Your task to perform on an android device: Show me productivity apps on the Play Store Image 0: 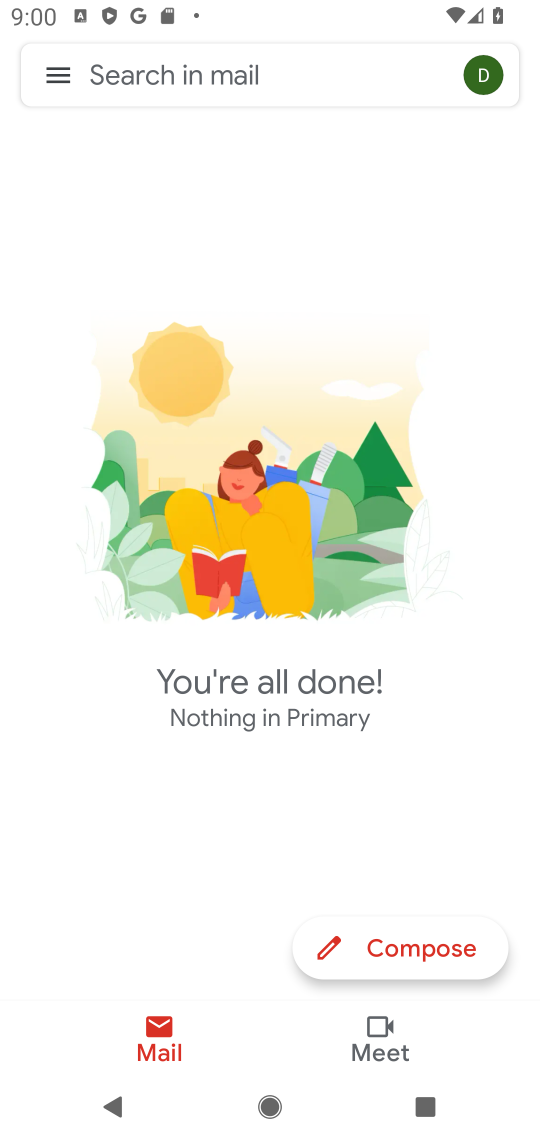
Step 0: press home button
Your task to perform on an android device: Show me productivity apps on the Play Store Image 1: 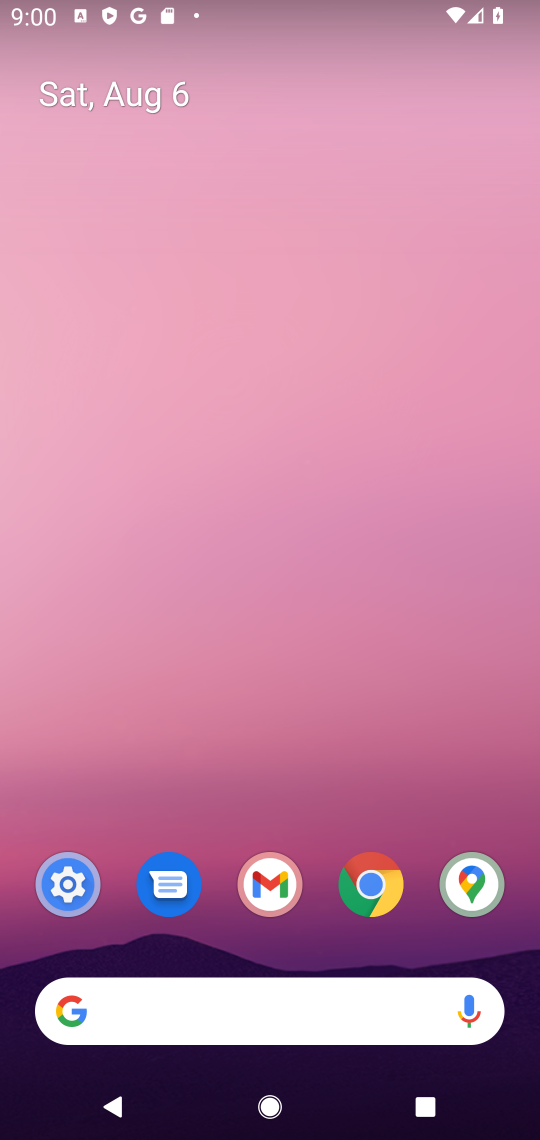
Step 1: drag from (436, 944) to (374, 121)
Your task to perform on an android device: Show me productivity apps on the Play Store Image 2: 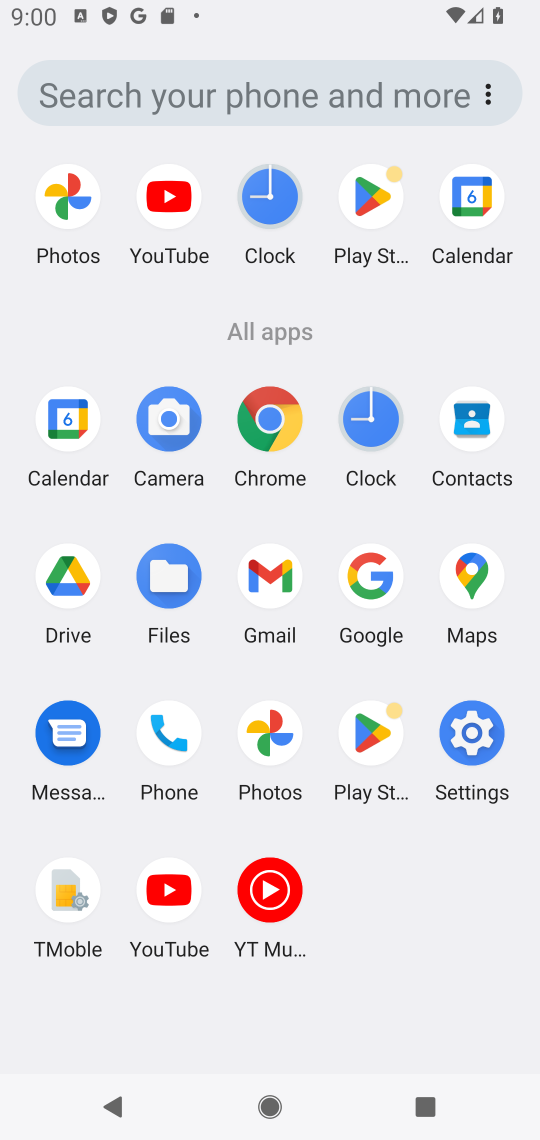
Step 2: click (373, 732)
Your task to perform on an android device: Show me productivity apps on the Play Store Image 3: 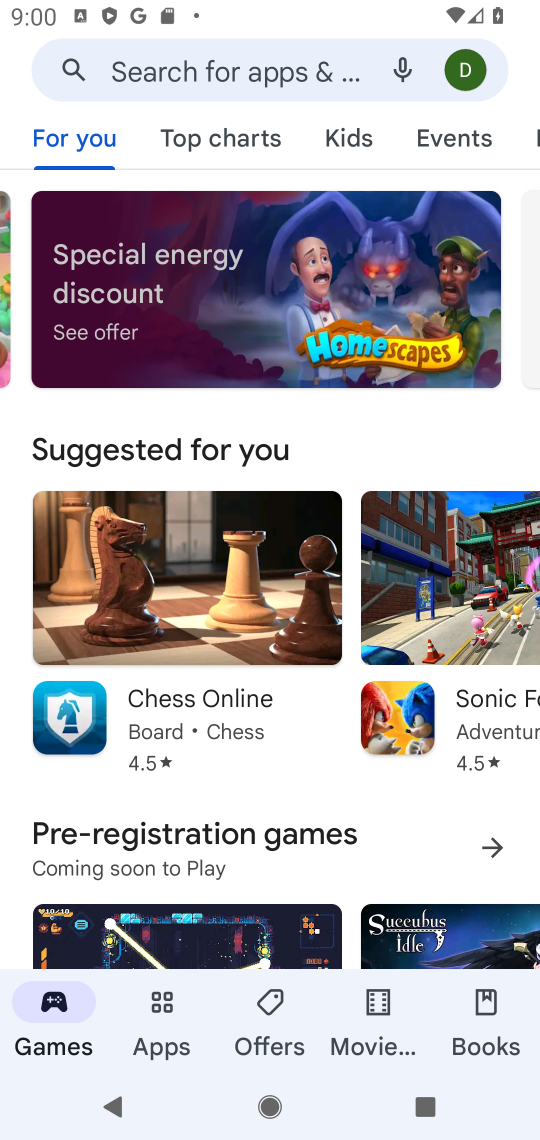
Step 3: click (156, 1015)
Your task to perform on an android device: Show me productivity apps on the Play Store Image 4: 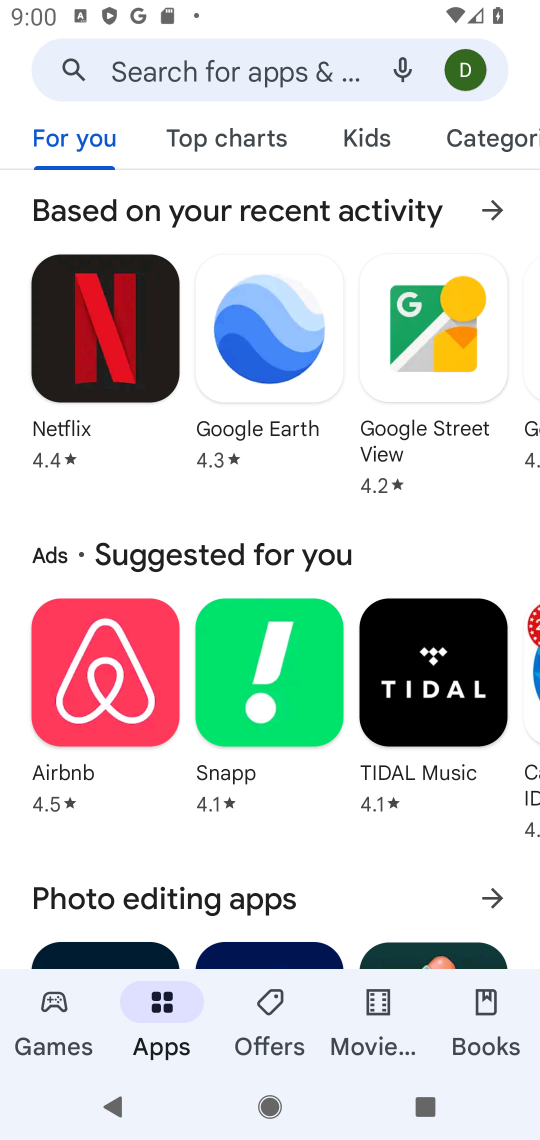
Step 4: click (488, 136)
Your task to perform on an android device: Show me productivity apps on the Play Store Image 5: 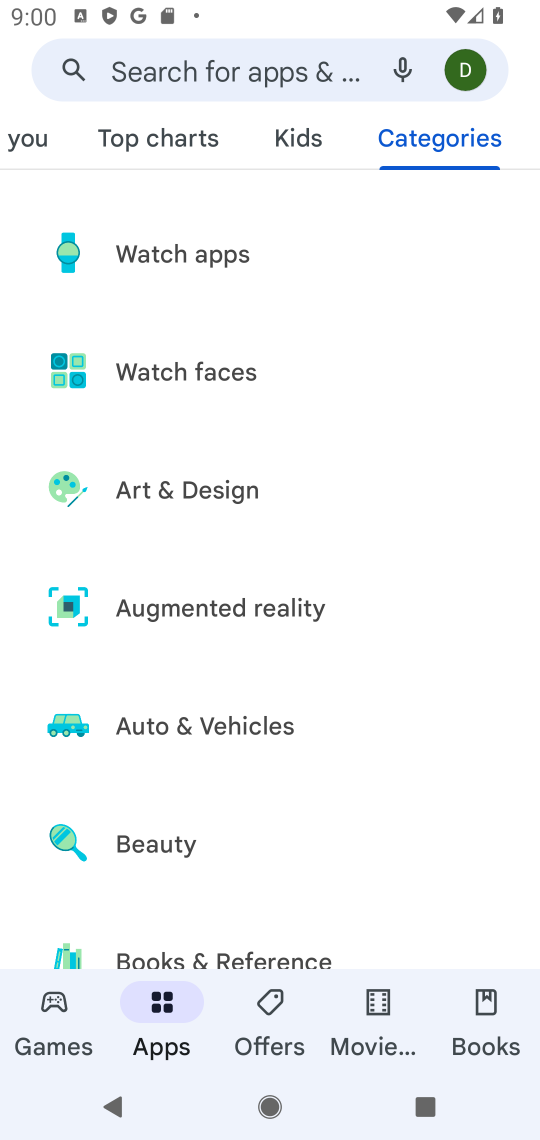
Step 5: drag from (359, 905) to (351, 281)
Your task to perform on an android device: Show me productivity apps on the Play Store Image 6: 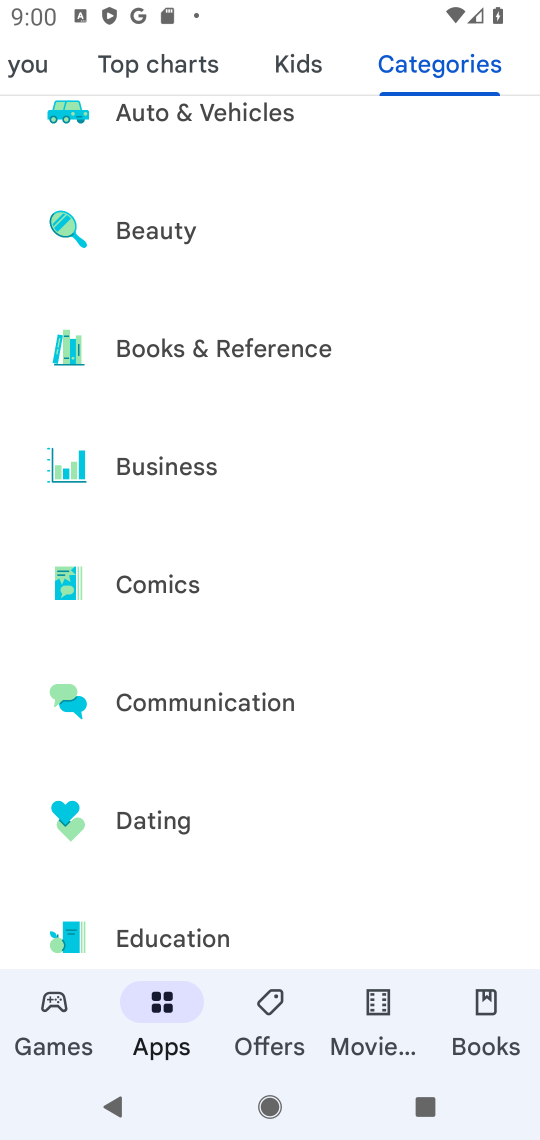
Step 6: drag from (359, 926) to (345, 338)
Your task to perform on an android device: Show me productivity apps on the Play Store Image 7: 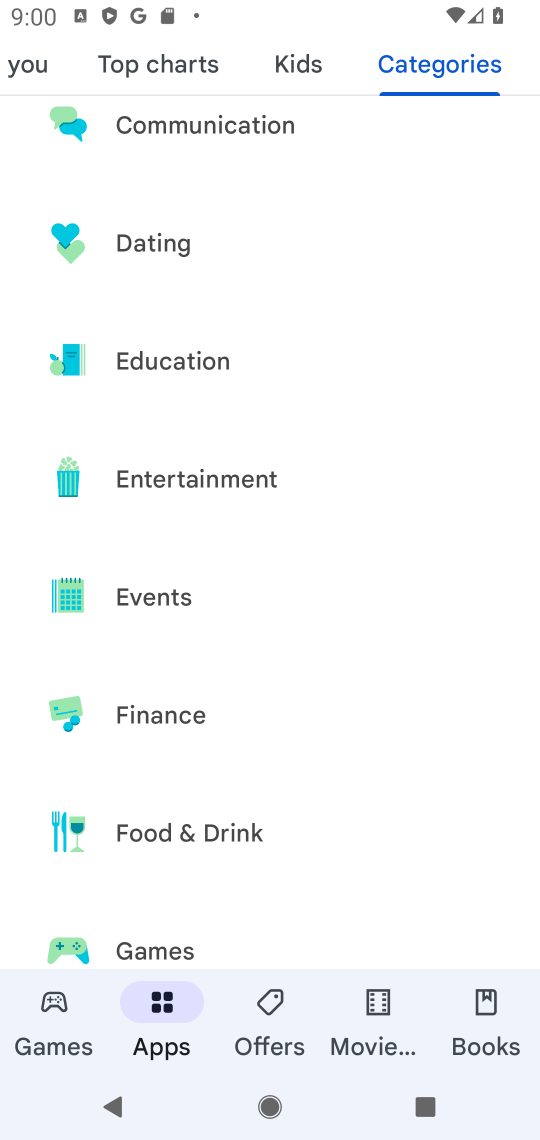
Step 7: drag from (333, 932) to (305, 300)
Your task to perform on an android device: Show me productivity apps on the Play Store Image 8: 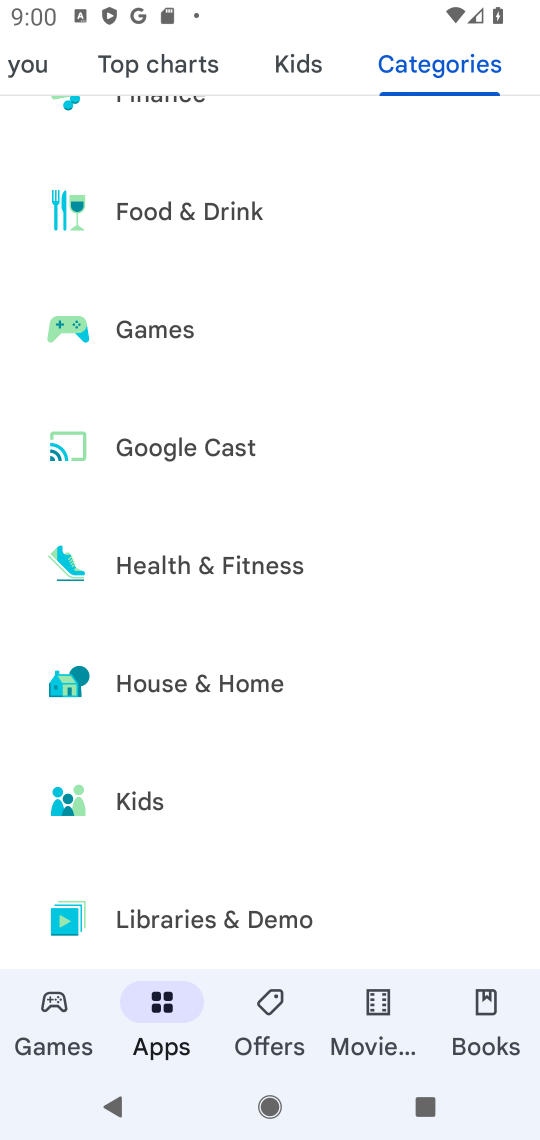
Step 8: drag from (395, 899) to (352, 267)
Your task to perform on an android device: Show me productivity apps on the Play Store Image 9: 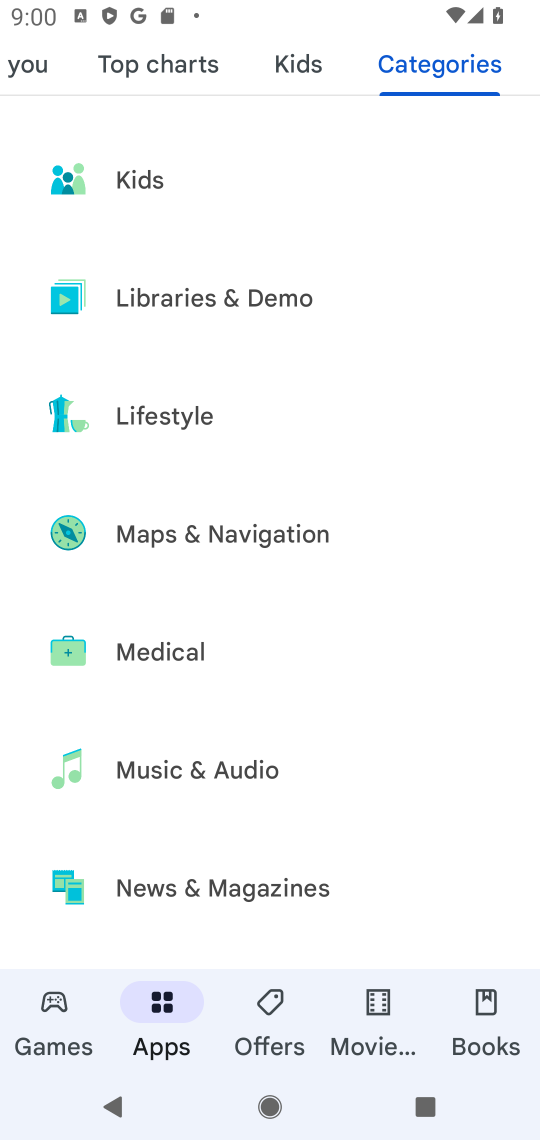
Step 9: drag from (367, 953) to (333, 288)
Your task to perform on an android device: Show me productivity apps on the Play Store Image 10: 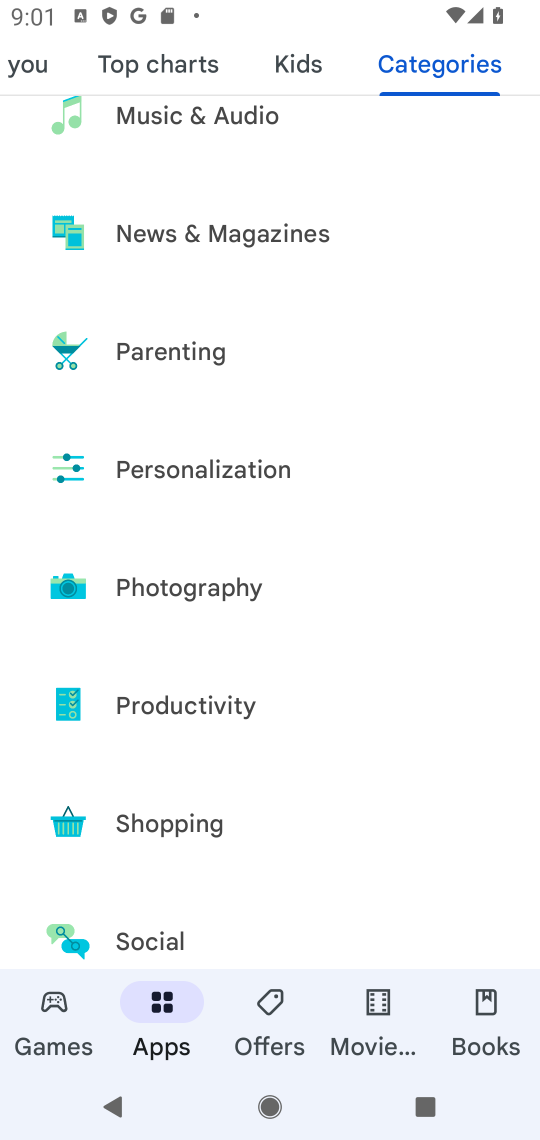
Step 10: click (174, 701)
Your task to perform on an android device: Show me productivity apps on the Play Store Image 11: 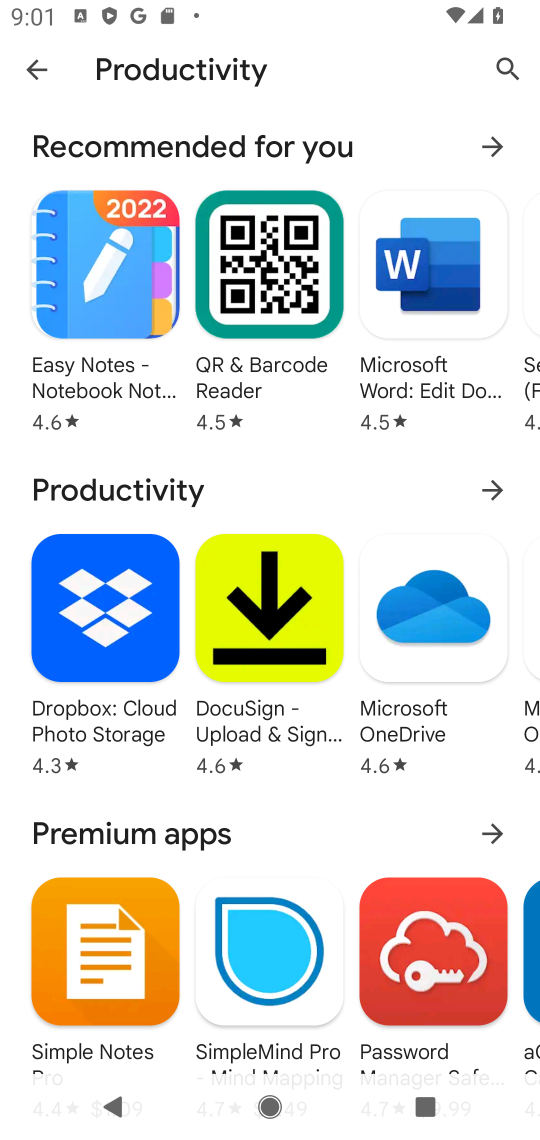
Step 11: click (492, 490)
Your task to perform on an android device: Show me productivity apps on the Play Store Image 12: 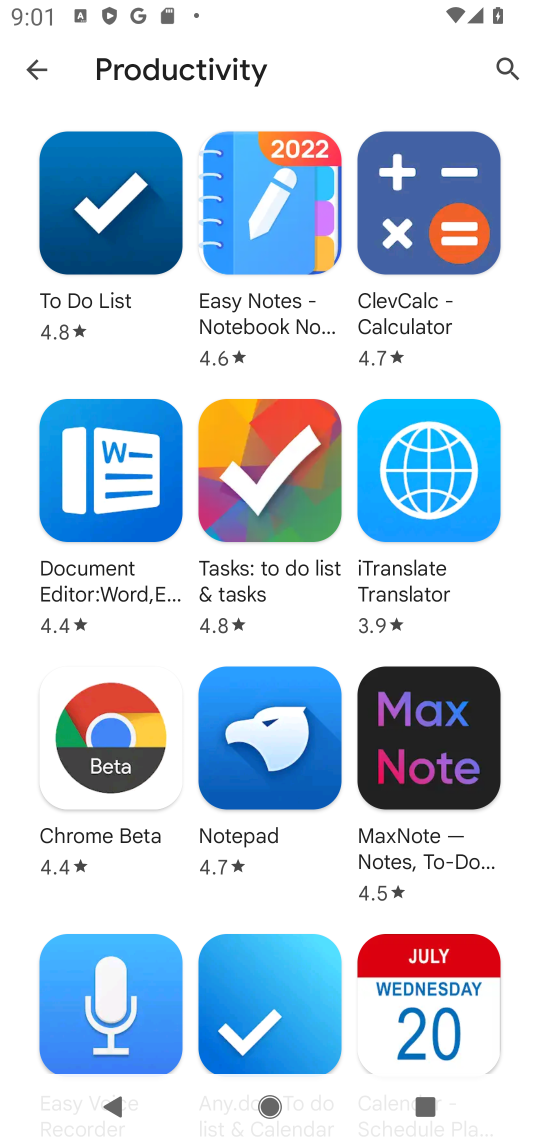
Step 12: task complete